Your task to perform on an android device: set default search engine in the chrome app Image 0: 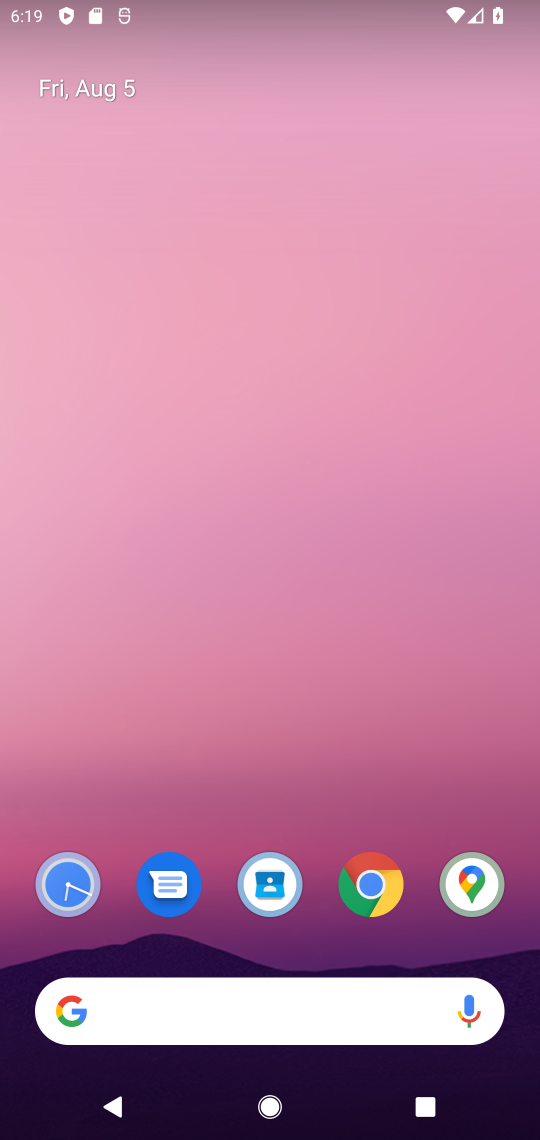
Step 0: click (368, 879)
Your task to perform on an android device: set default search engine in the chrome app Image 1: 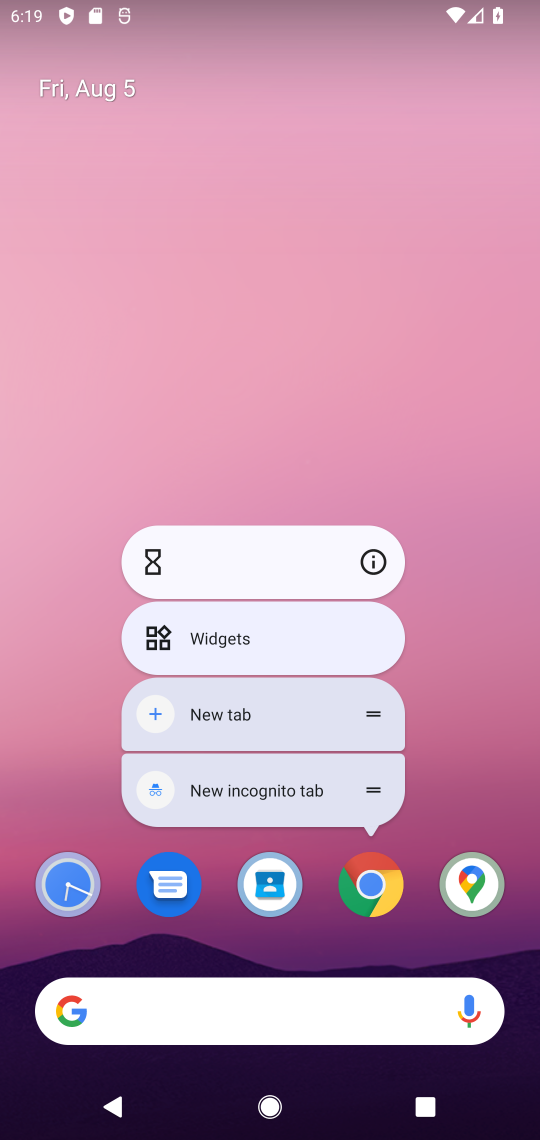
Step 1: drag from (426, 931) to (457, 165)
Your task to perform on an android device: set default search engine in the chrome app Image 2: 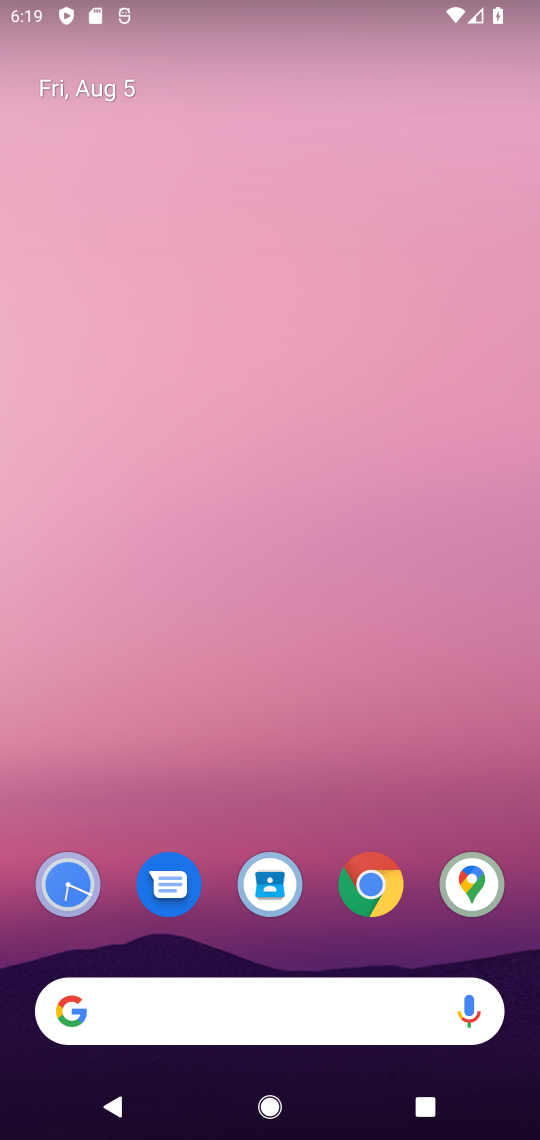
Step 2: drag from (411, 923) to (408, 209)
Your task to perform on an android device: set default search engine in the chrome app Image 3: 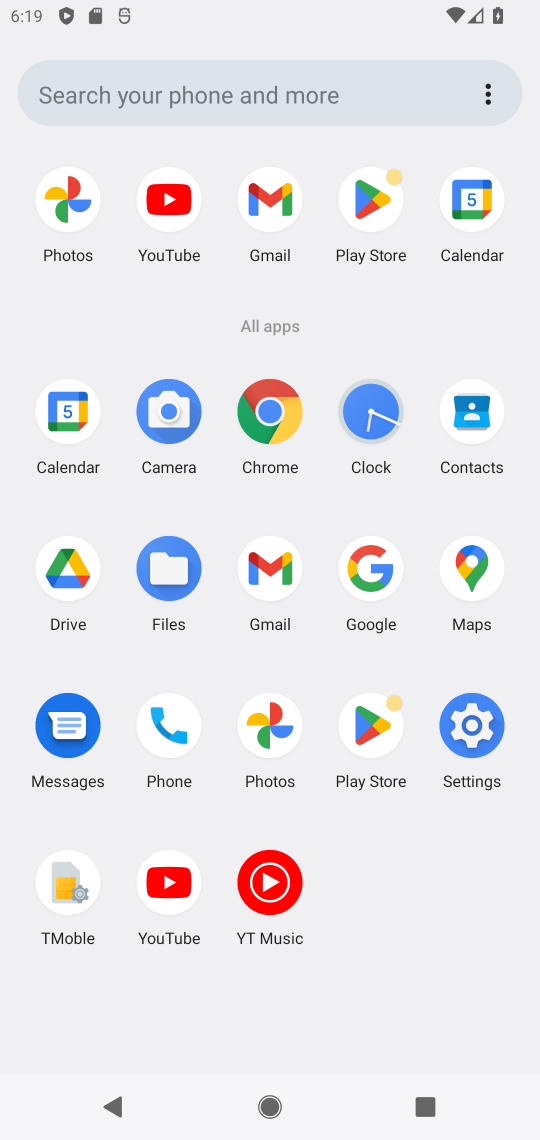
Step 3: click (273, 404)
Your task to perform on an android device: set default search engine in the chrome app Image 4: 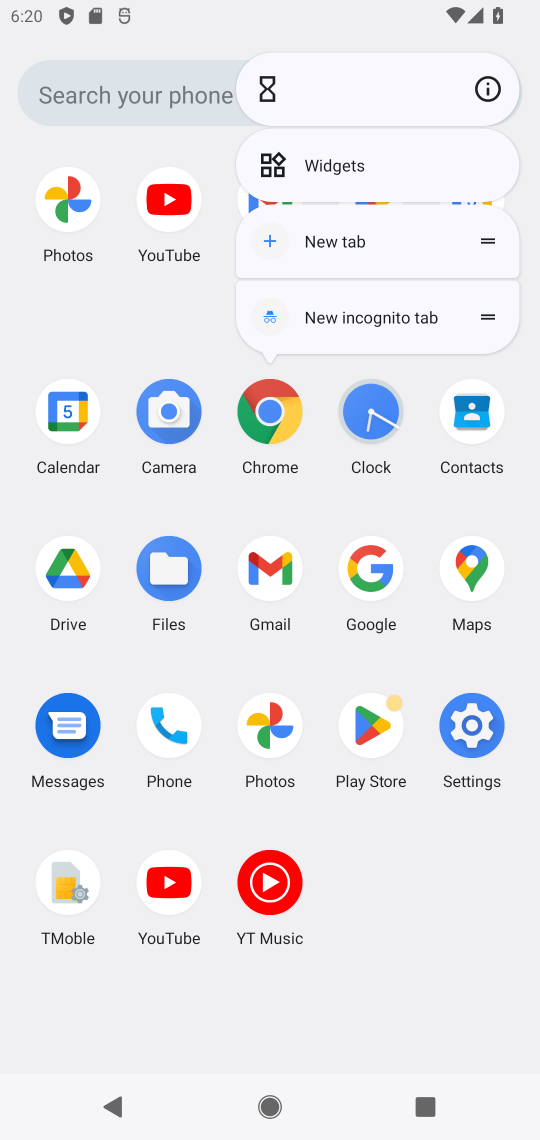
Step 4: click (262, 406)
Your task to perform on an android device: set default search engine in the chrome app Image 5: 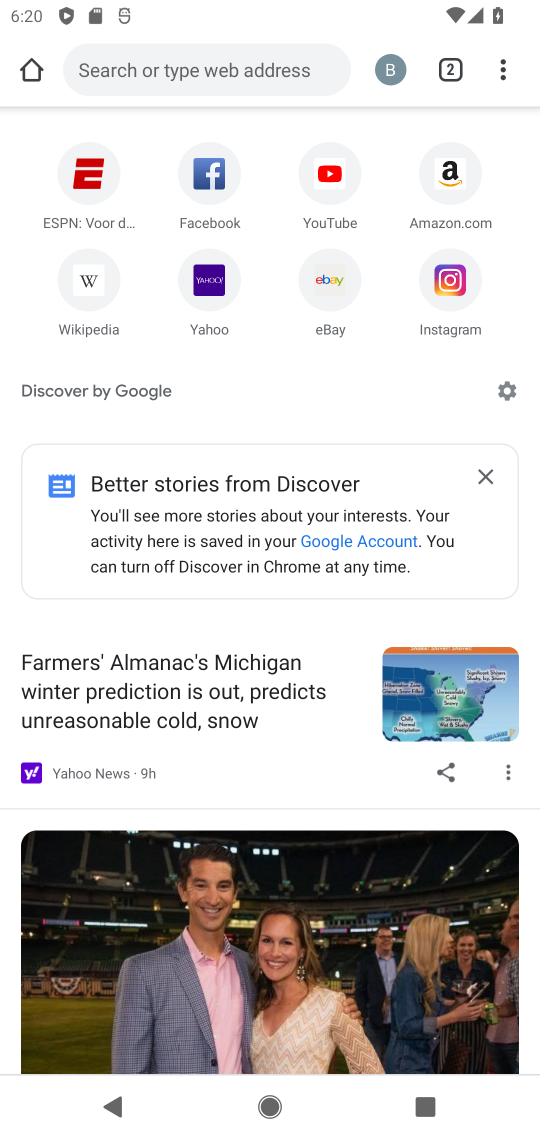
Step 5: click (503, 68)
Your task to perform on an android device: set default search engine in the chrome app Image 6: 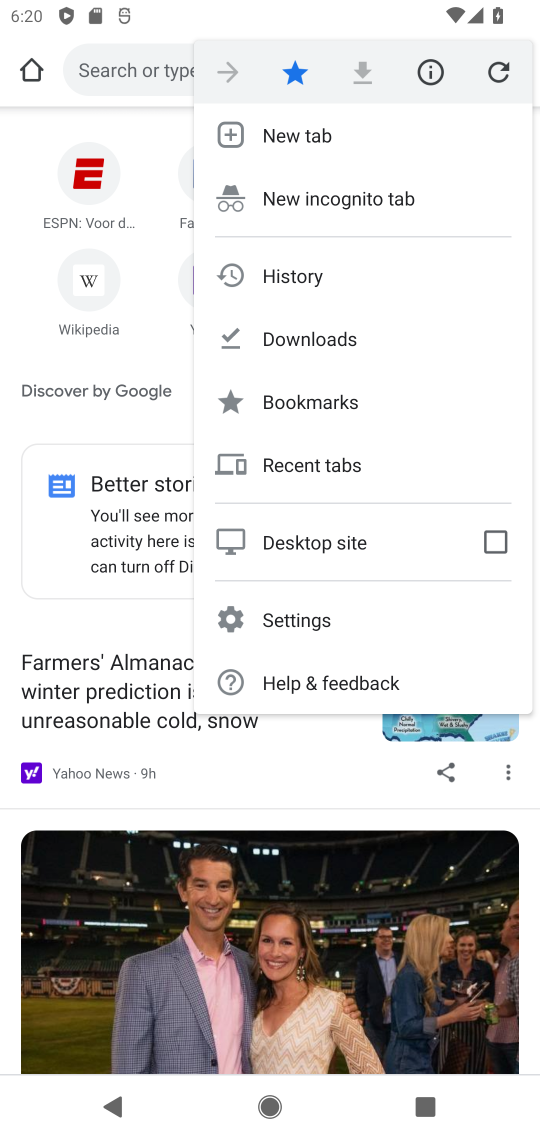
Step 6: click (323, 613)
Your task to perform on an android device: set default search engine in the chrome app Image 7: 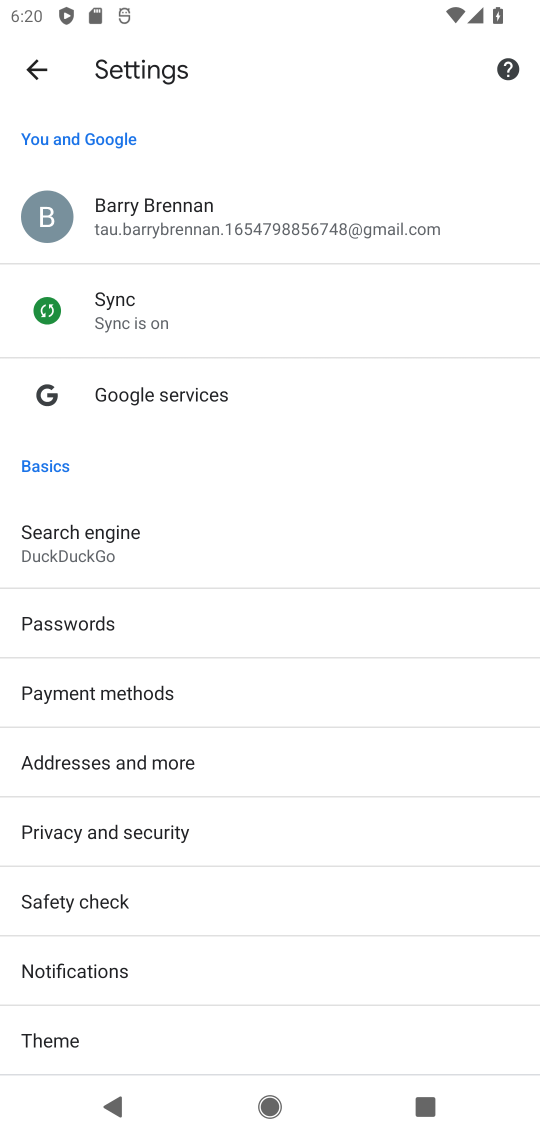
Step 7: click (166, 543)
Your task to perform on an android device: set default search engine in the chrome app Image 8: 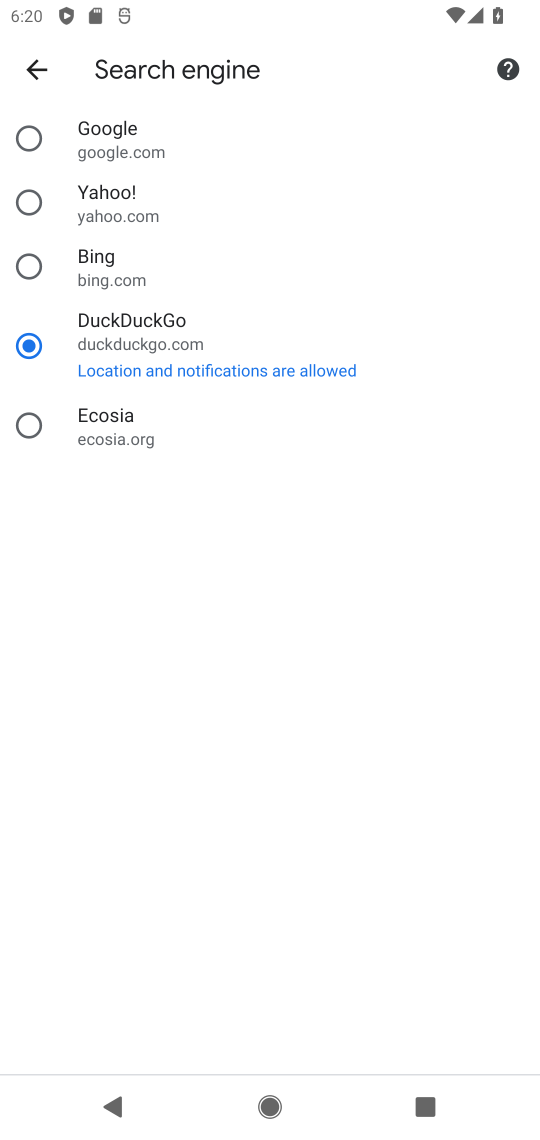
Step 8: click (30, 197)
Your task to perform on an android device: set default search engine in the chrome app Image 9: 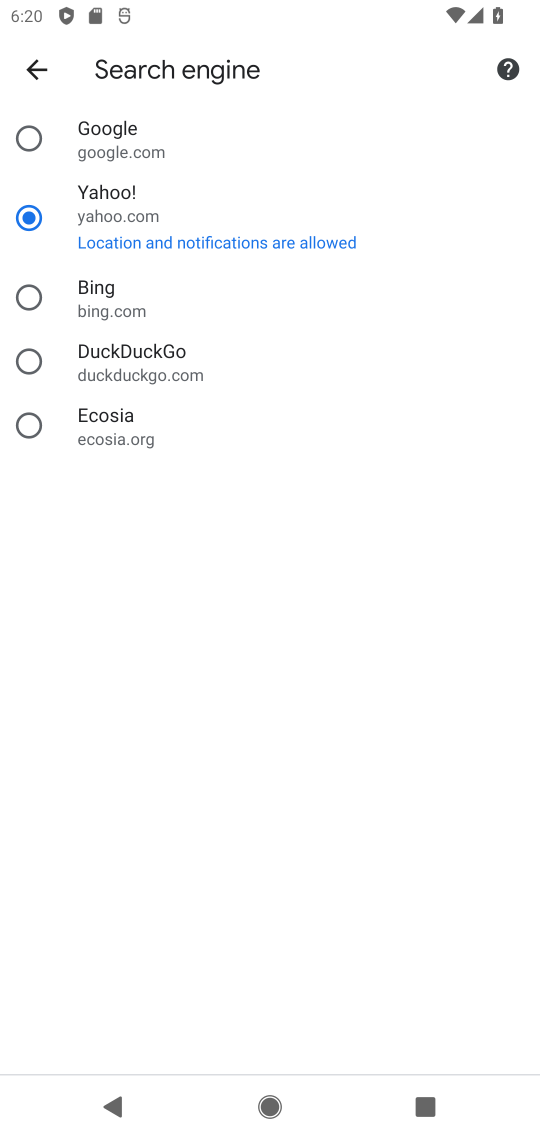
Step 9: task complete